Your task to perform on an android device: Search for vegetarian restaurants on Maps Image 0: 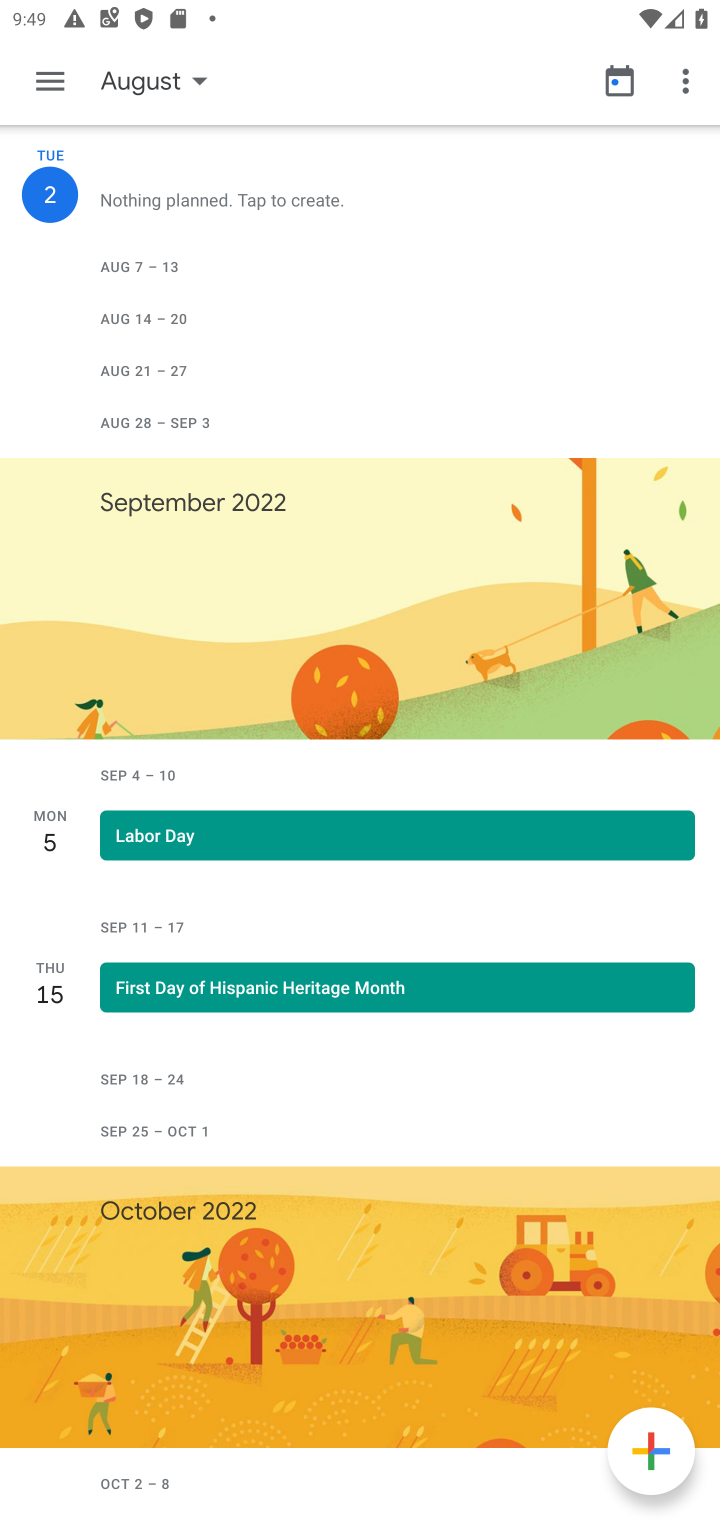
Step 0: press home button
Your task to perform on an android device: Search for vegetarian restaurants on Maps Image 1: 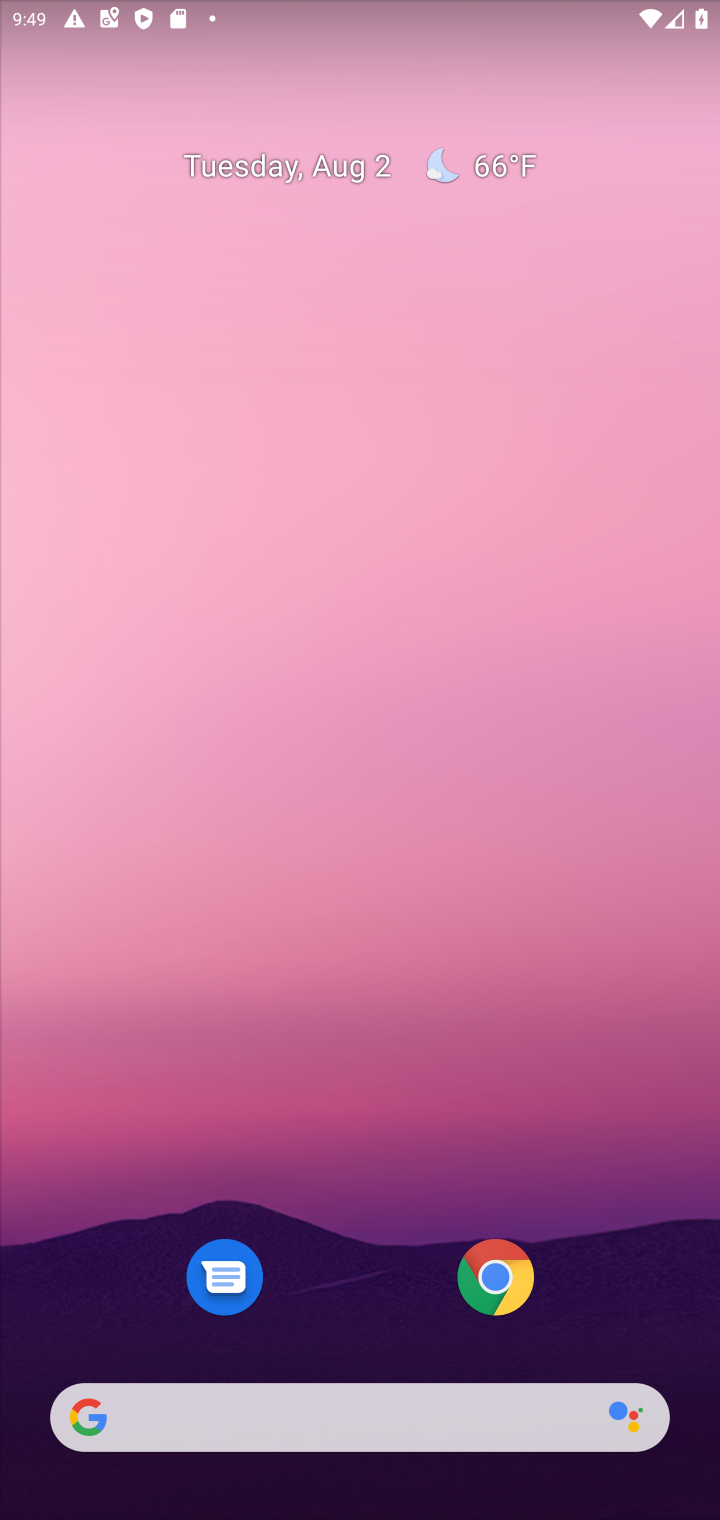
Step 1: click (227, 1436)
Your task to perform on an android device: Search for vegetarian restaurants on Maps Image 2: 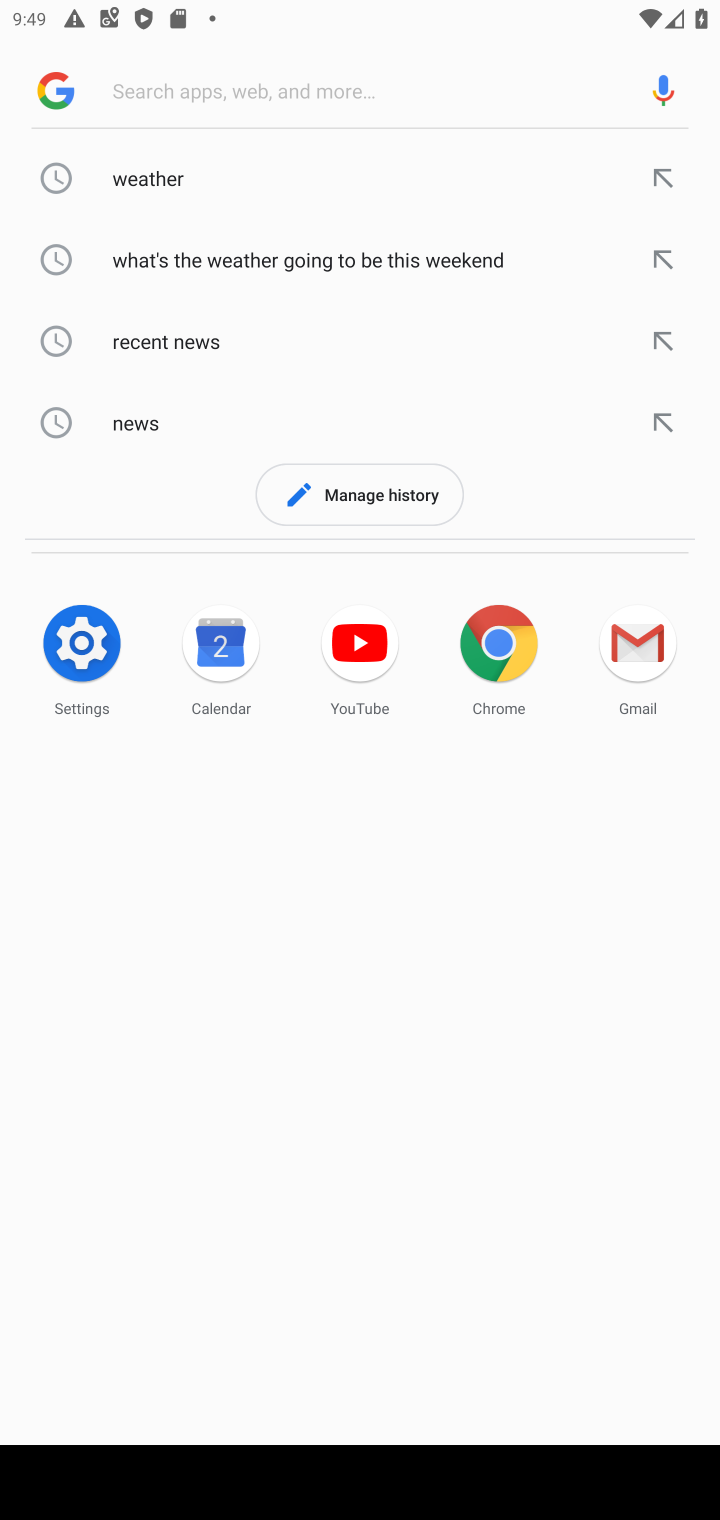
Step 2: press enter
Your task to perform on an android device: Search for vegetarian restaurants on Maps Image 3: 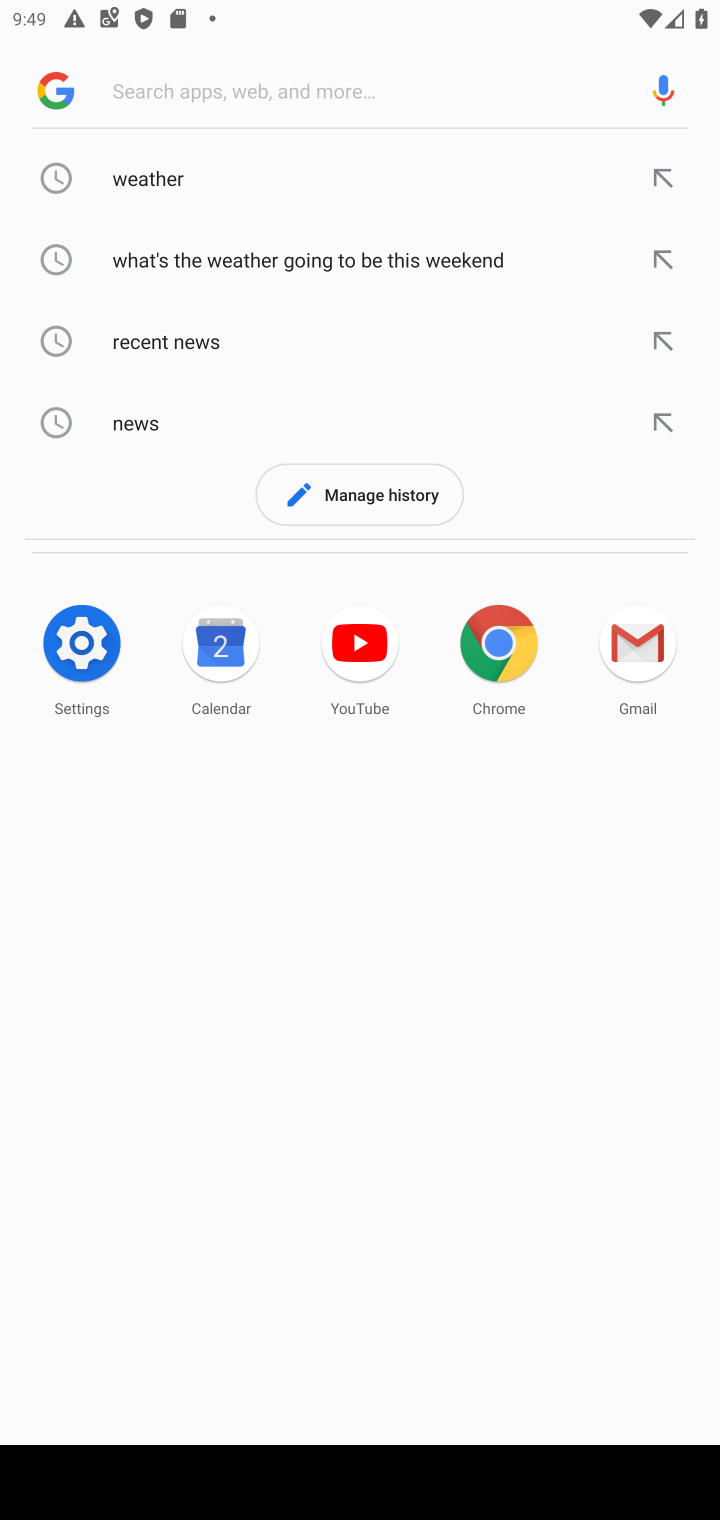
Step 3: type "vegetarian restaurants "
Your task to perform on an android device: Search for vegetarian restaurants on Maps Image 4: 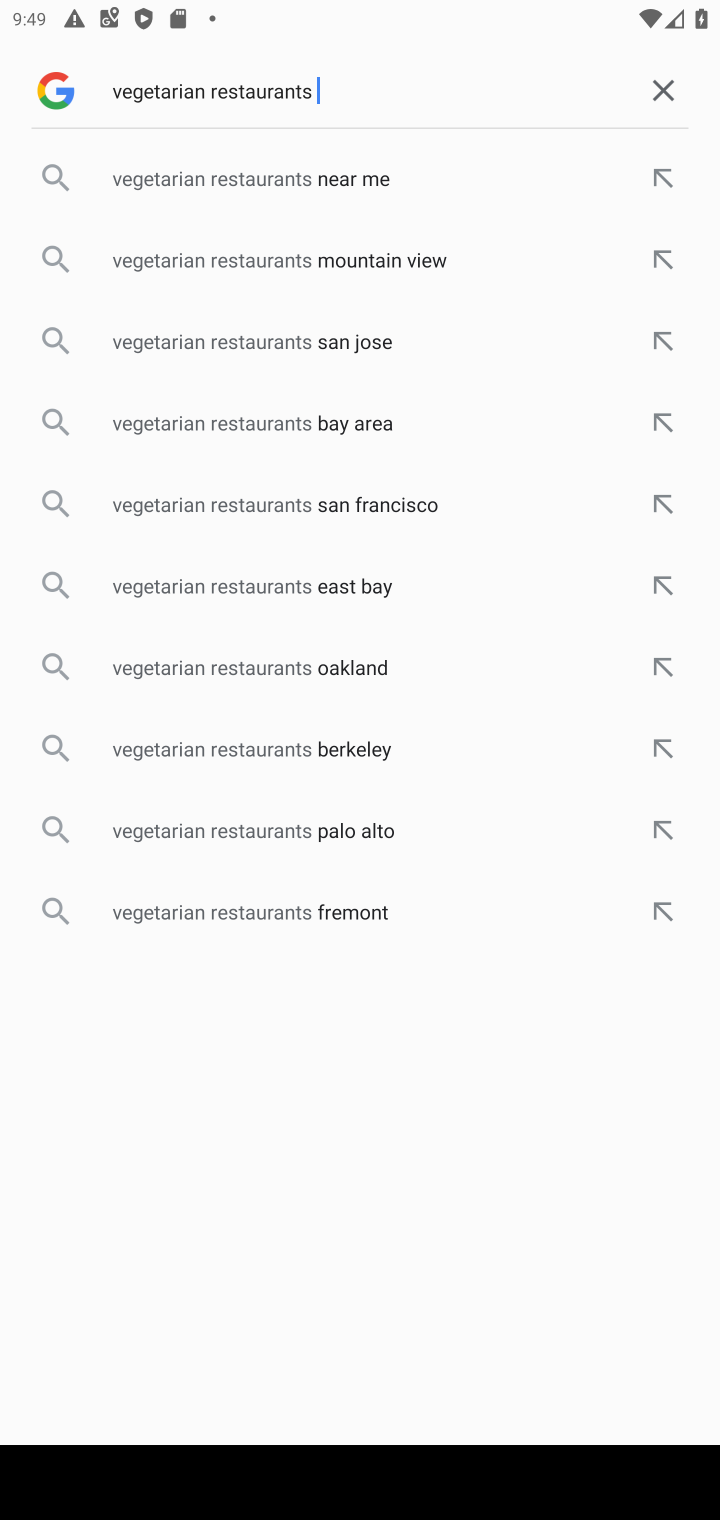
Step 4: type ""
Your task to perform on an android device: Search for vegetarian restaurants on Maps Image 5: 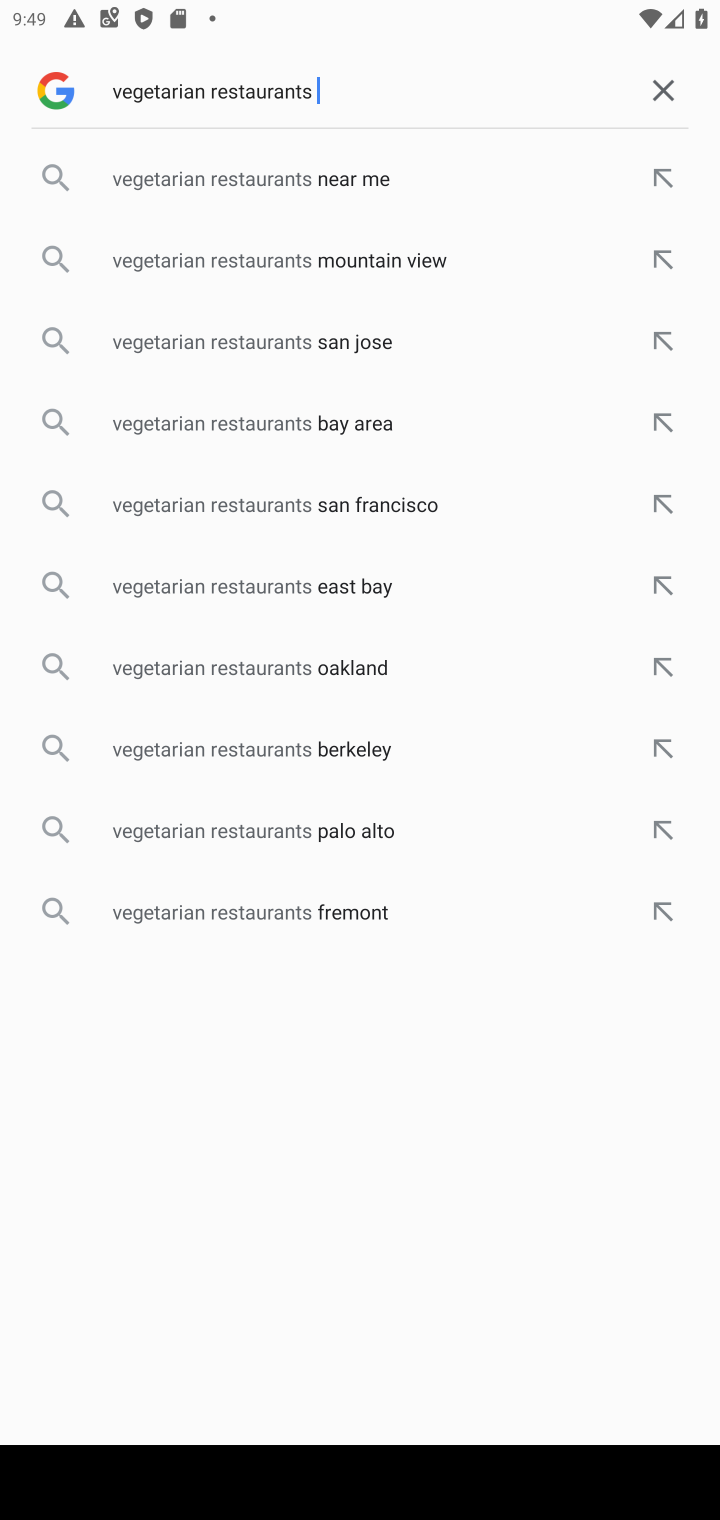
Step 5: press enter
Your task to perform on an android device: Search for vegetarian restaurants on Maps Image 6: 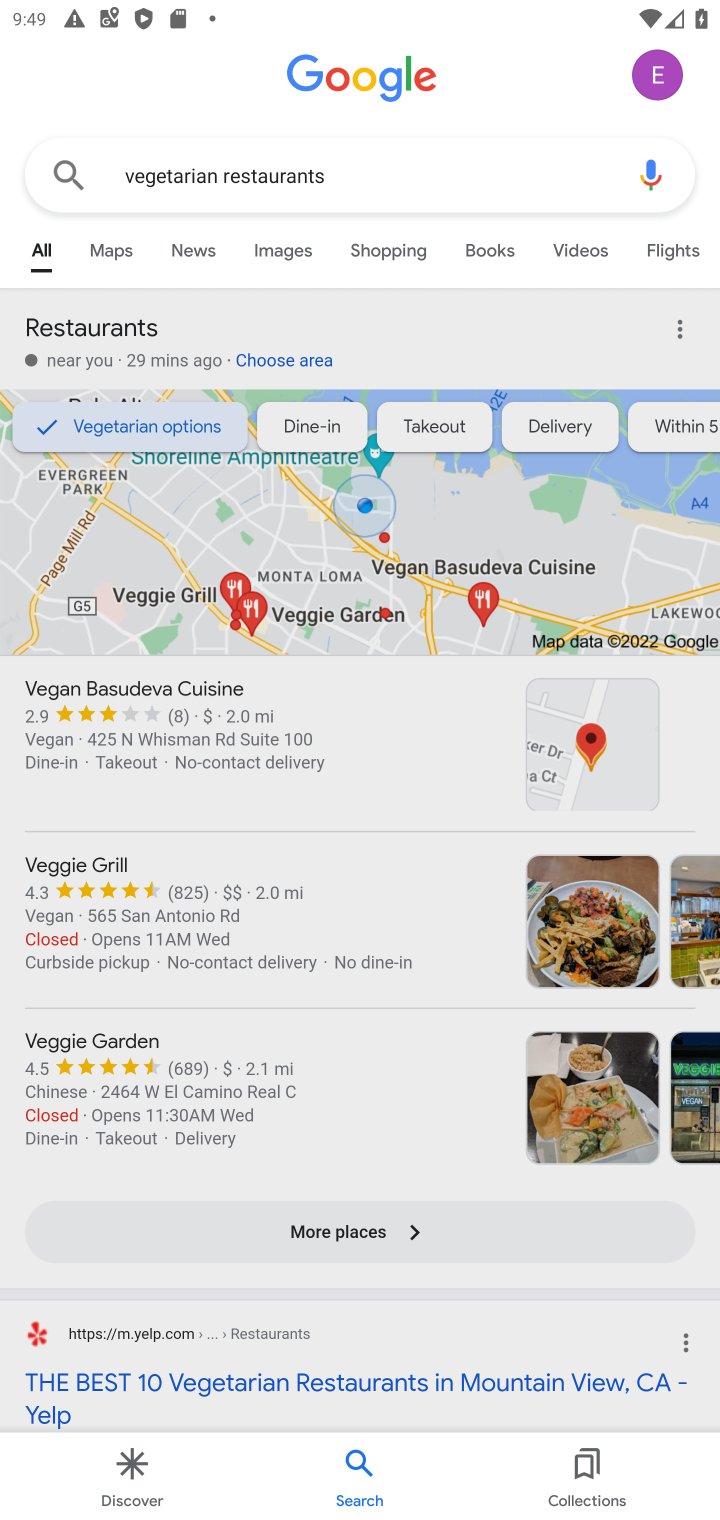
Step 6: task complete